Your task to perform on an android device: turn on sleep mode Image 0: 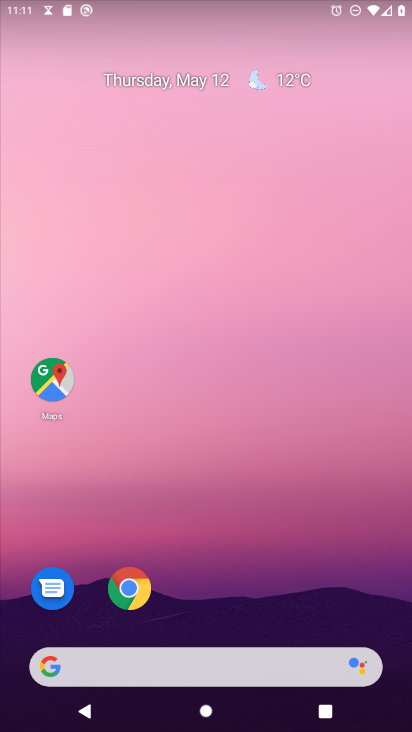
Step 0: drag from (194, 596) to (242, 22)
Your task to perform on an android device: turn on sleep mode Image 1: 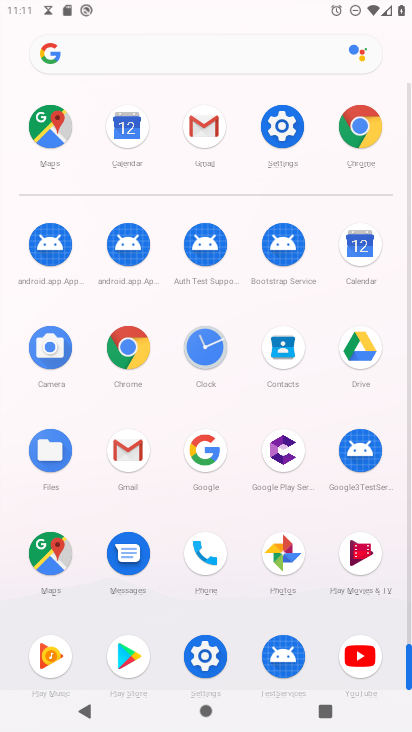
Step 1: click (281, 124)
Your task to perform on an android device: turn on sleep mode Image 2: 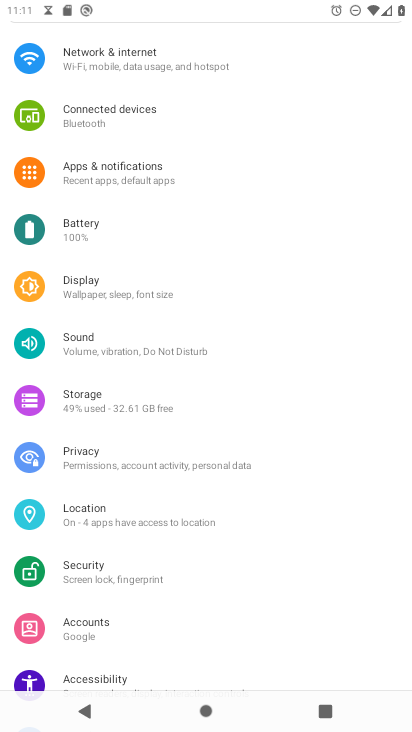
Step 2: click (82, 277)
Your task to perform on an android device: turn on sleep mode Image 3: 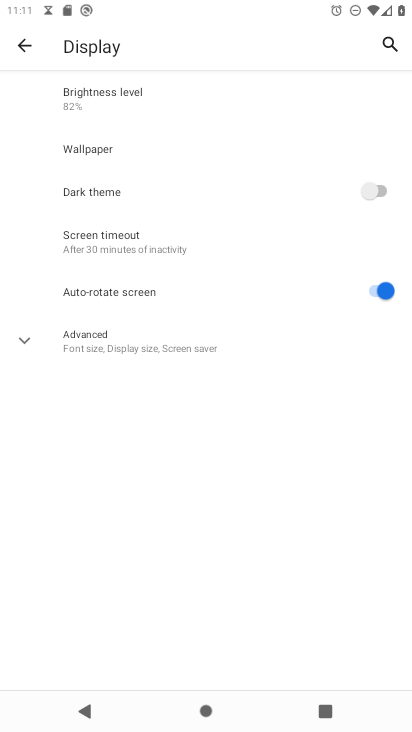
Step 3: click (131, 240)
Your task to perform on an android device: turn on sleep mode Image 4: 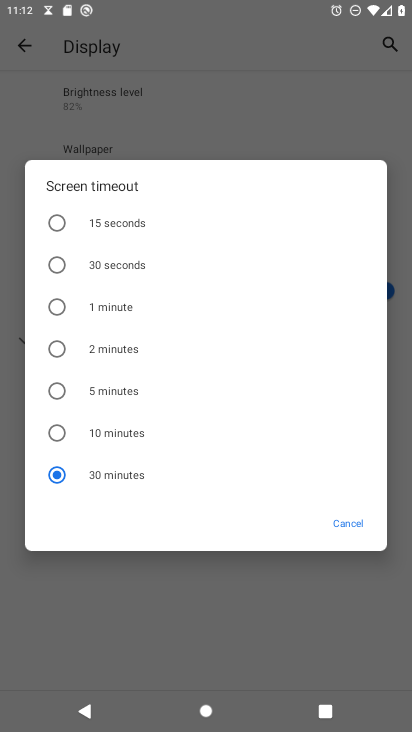
Step 4: task complete